Your task to perform on an android device: Open calendar and show me the third week of next month Image 0: 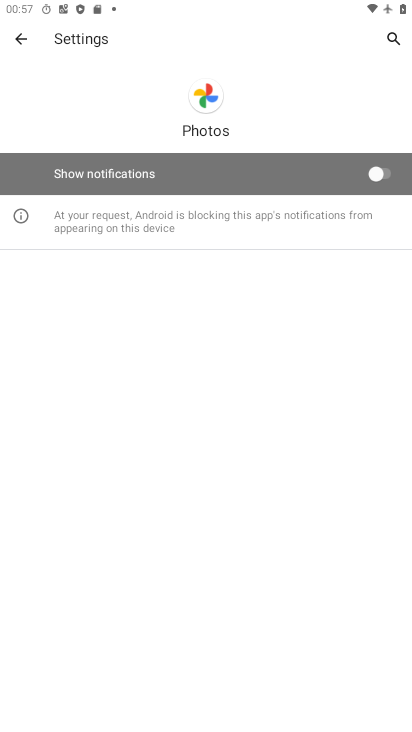
Step 0: press home button
Your task to perform on an android device: Open calendar and show me the third week of next month Image 1: 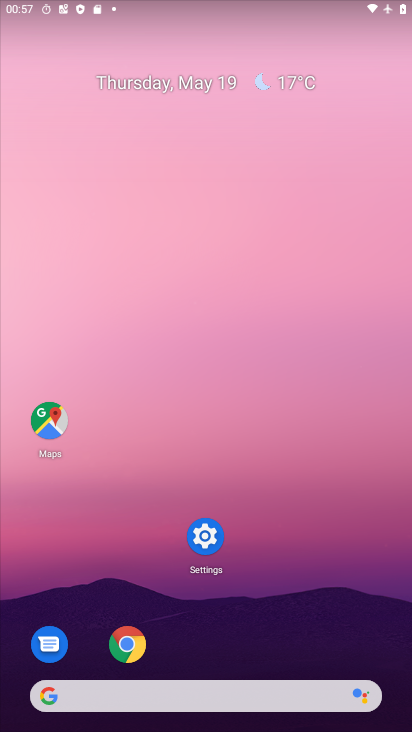
Step 1: drag from (272, 603) to (264, 131)
Your task to perform on an android device: Open calendar and show me the third week of next month Image 2: 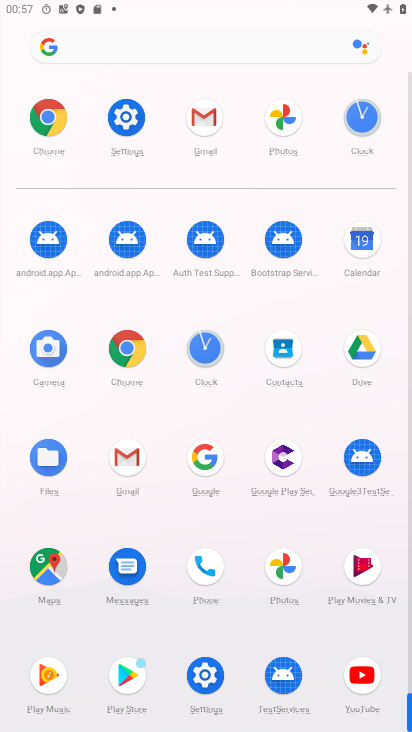
Step 2: click (366, 235)
Your task to perform on an android device: Open calendar and show me the third week of next month Image 3: 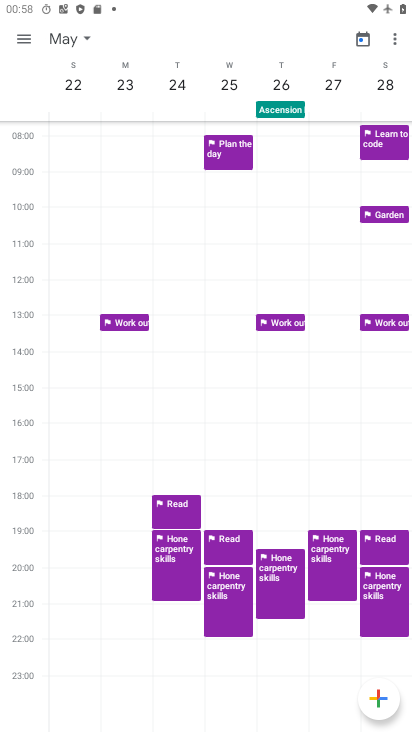
Step 3: click (70, 39)
Your task to perform on an android device: Open calendar and show me the third week of next month Image 4: 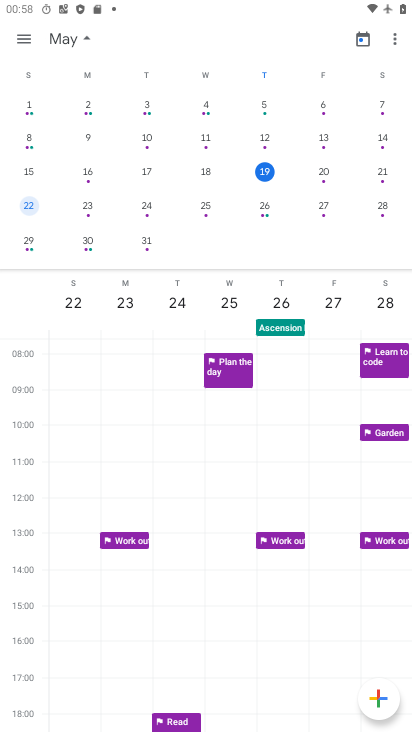
Step 4: drag from (292, 166) to (85, 159)
Your task to perform on an android device: Open calendar and show me the third week of next month Image 5: 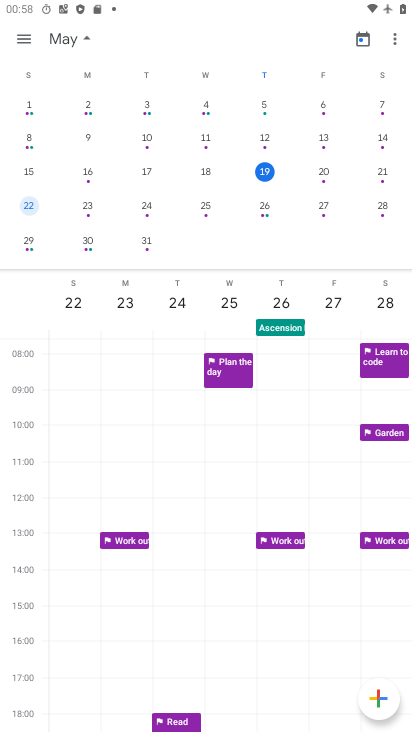
Step 5: drag from (322, 128) to (86, 136)
Your task to perform on an android device: Open calendar and show me the third week of next month Image 6: 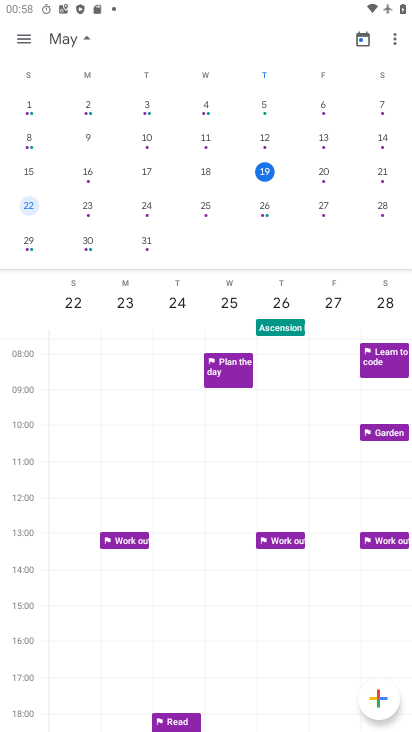
Step 6: drag from (388, 207) to (33, 191)
Your task to perform on an android device: Open calendar and show me the third week of next month Image 7: 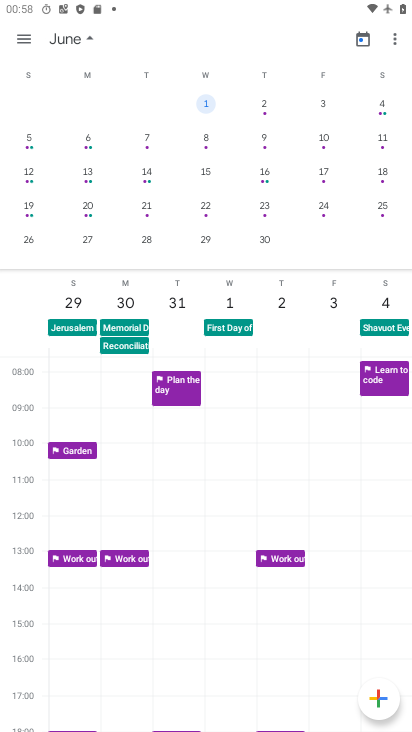
Step 7: click (262, 105)
Your task to perform on an android device: Open calendar and show me the third week of next month Image 8: 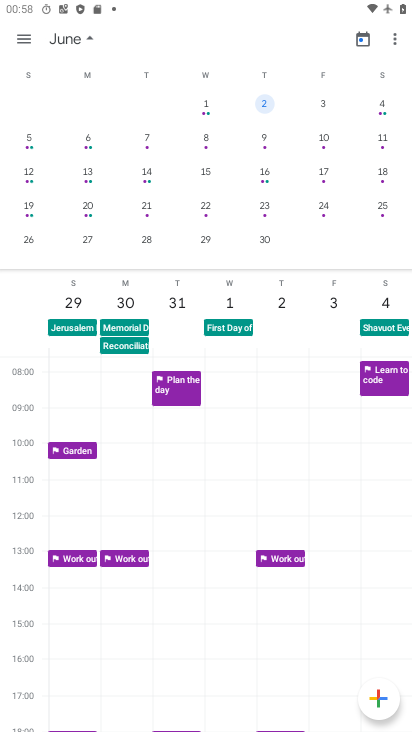
Step 8: task complete